Your task to perform on an android device: Search for Mexican restaurants on Maps Image 0: 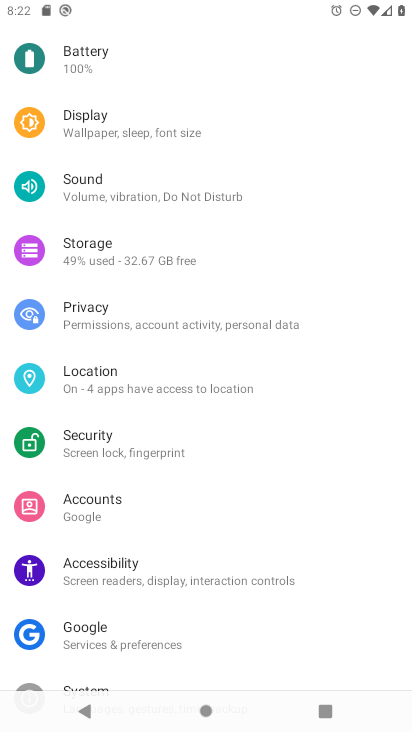
Step 0: press home button
Your task to perform on an android device: Search for Mexican restaurants on Maps Image 1: 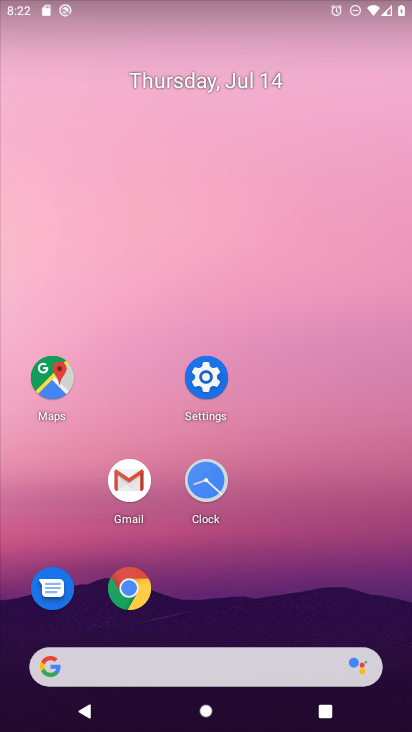
Step 1: click (48, 371)
Your task to perform on an android device: Search for Mexican restaurants on Maps Image 2: 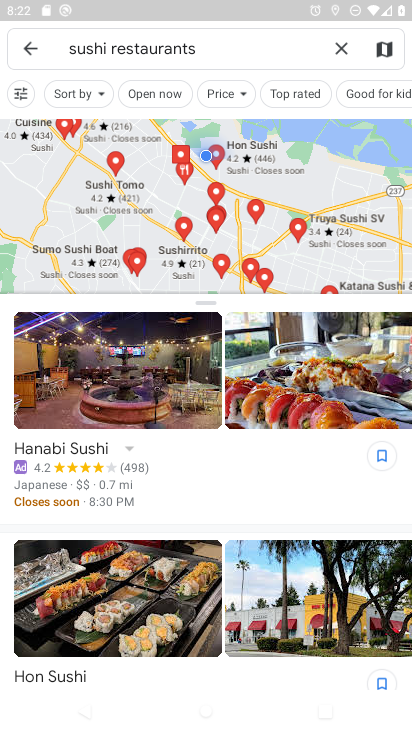
Step 2: click (344, 50)
Your task to perform on an android device: Search for Mexican restaurants on Maps Image 3: 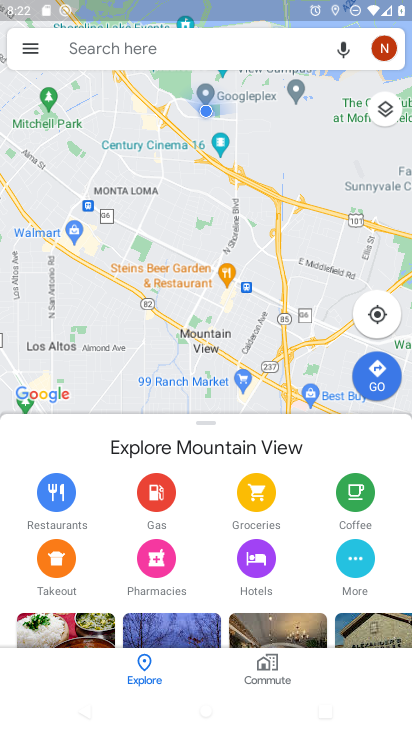
Step 3: click (116, 47)
Your task to perform on an android device: Search for Mexican restaurants on Maps Image 4: 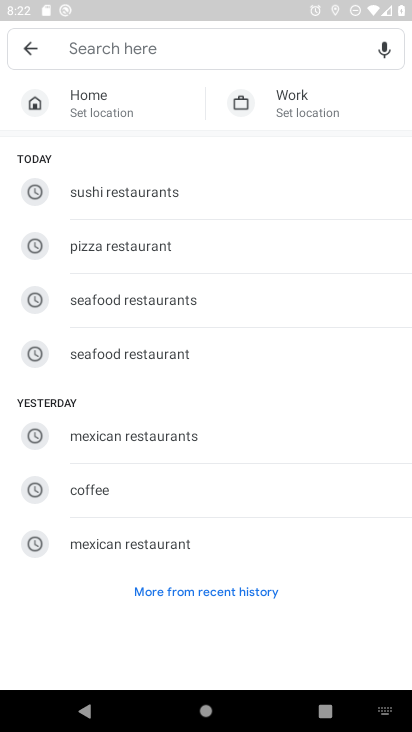
Step 4: type "Mexican restaurants"
Your task to perform on an android device: Search for Mexican restaurants on Maps Image 5: 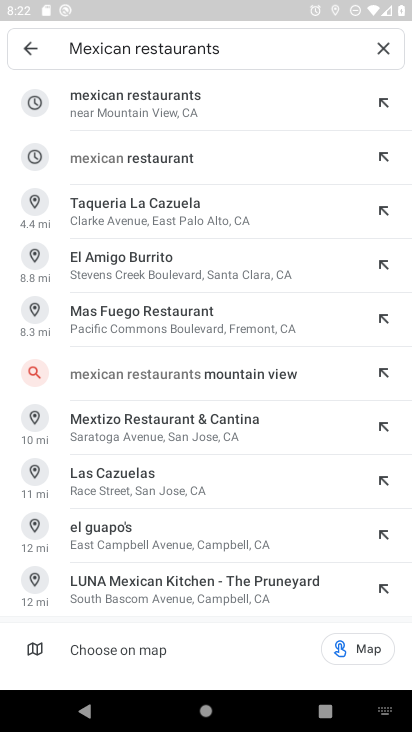
Step 5: click (133, 97)
Your task to perform on an android device: Search for Mexican restaurants on Maps Image 6: 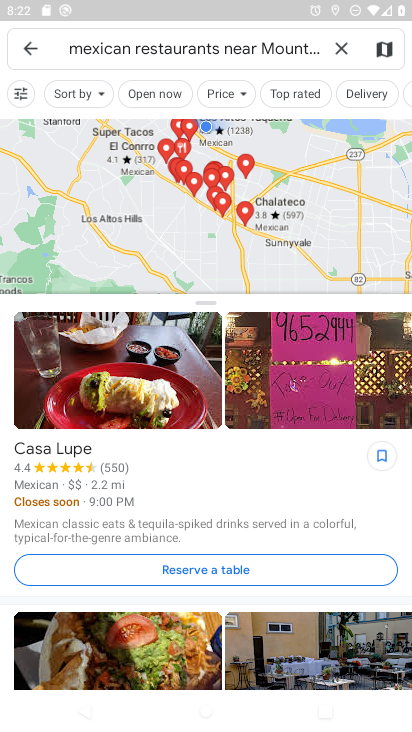
Step 6: task complete